Your task to perform on an android device: Open location settings Image 0: 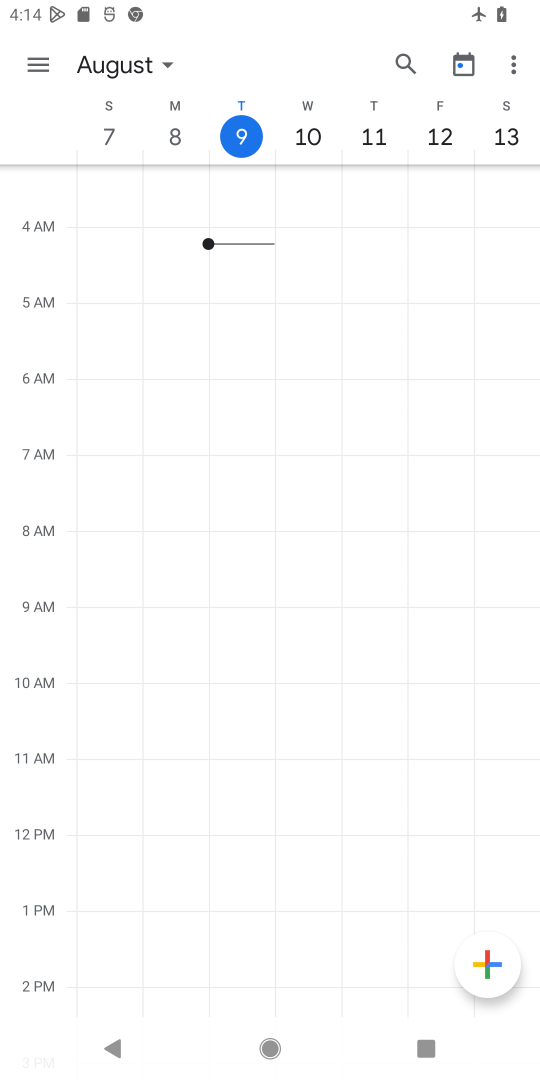
Step 0: press home button
Your task to perform on an android device: Open location settings Image 1: 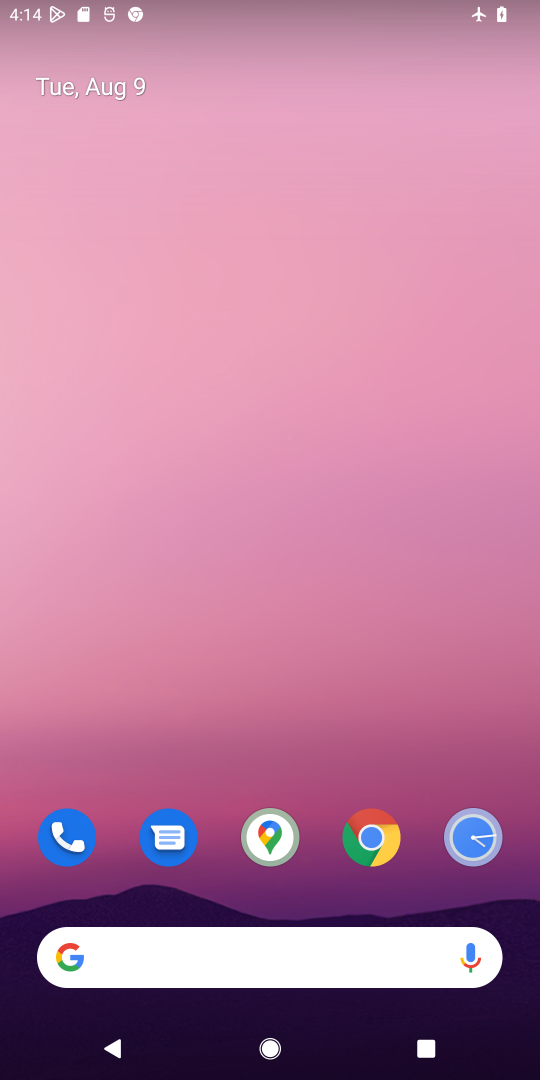
Step 1: drag from (267, 985) to (291, 346)
Your task to perform on an android device: Open location settings Image 2: 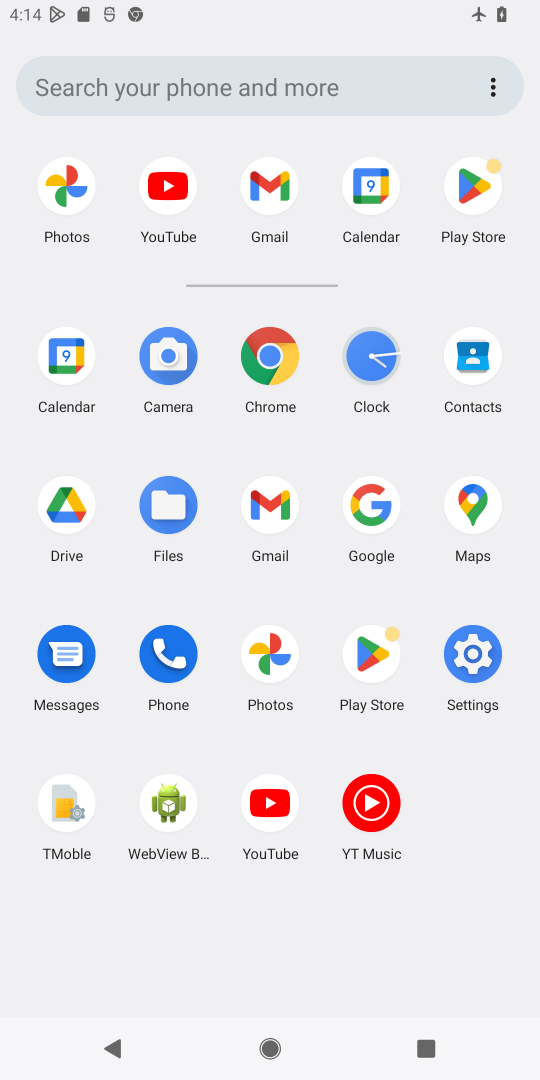
Step 2: click (477, 649)
Your task to perform on an android device: Open location settings Image 3: 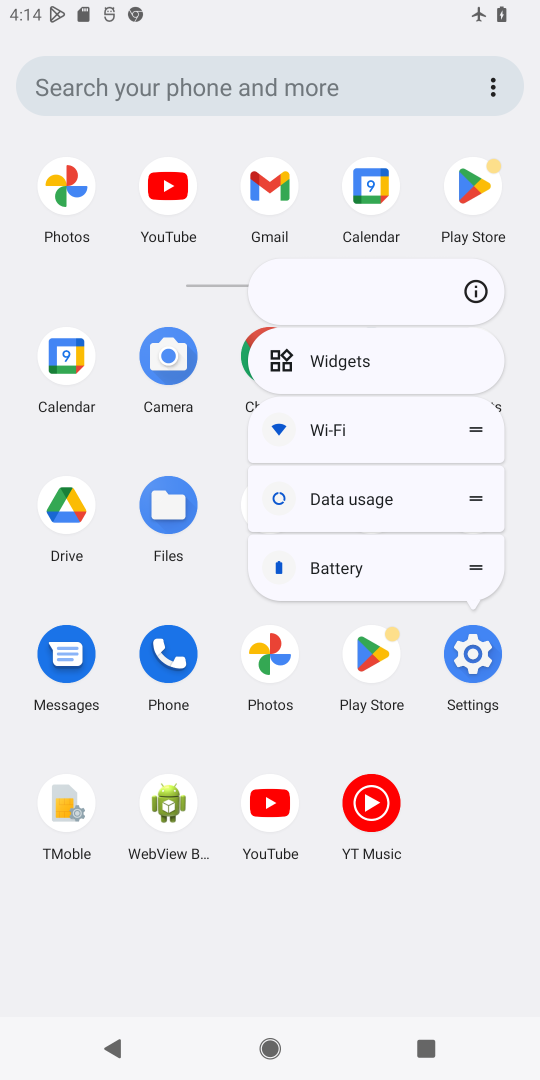
Step 3: click (464, 651)
Your task to perform on an android device: Open location settings Image 4: 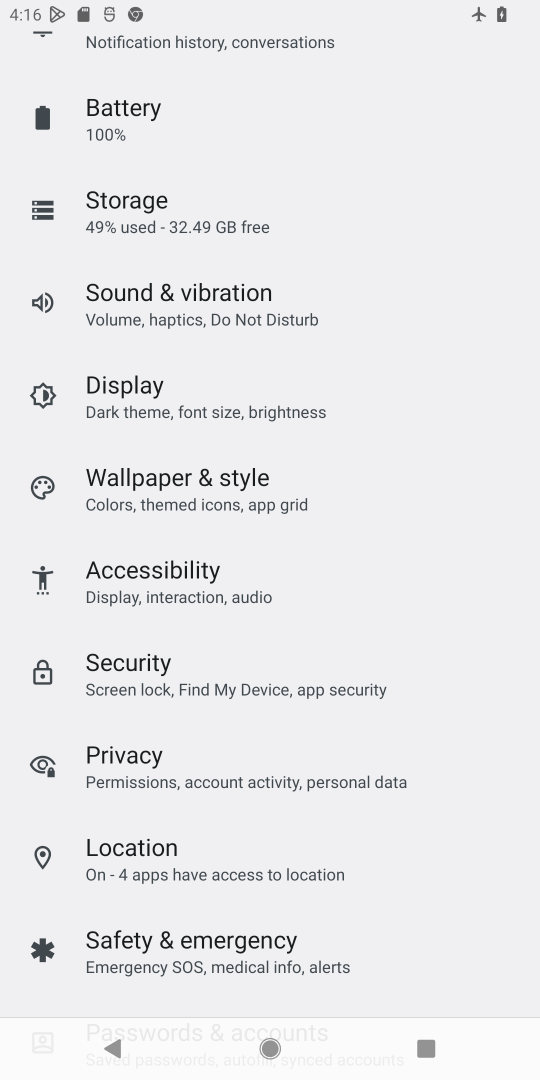
Step 4: click (133, 837)
Your task to perform on an android device: Open location settings Image 5: 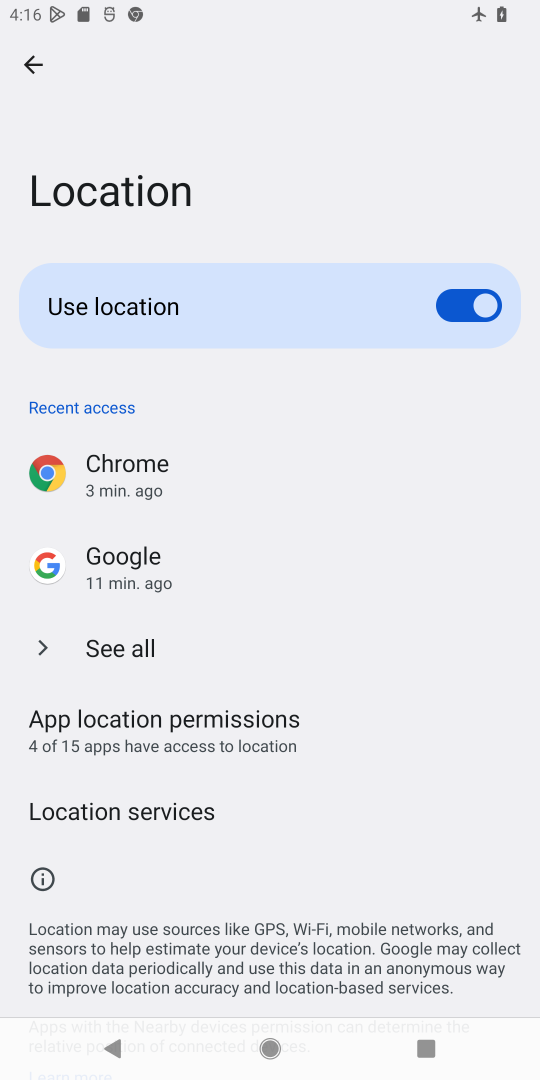
Step 5: task complete